Your task to perform on an android device: choose inbox layout in the gmail app Image 0: 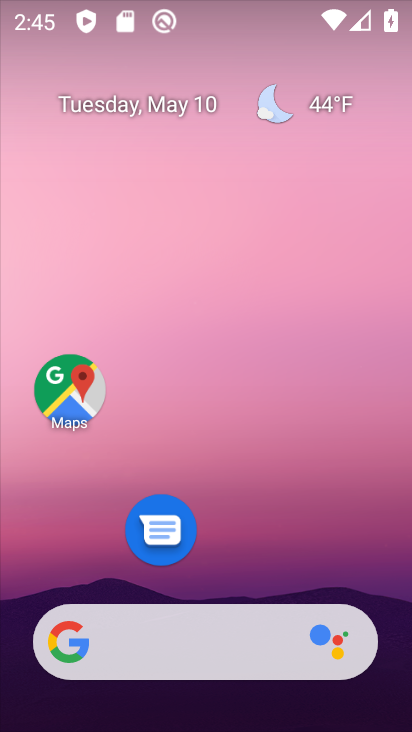
Step 0: drag from (224, 553) to (181, 34)
Your task to perform on an android device: choose inbox layout in the gmail app Image 1: 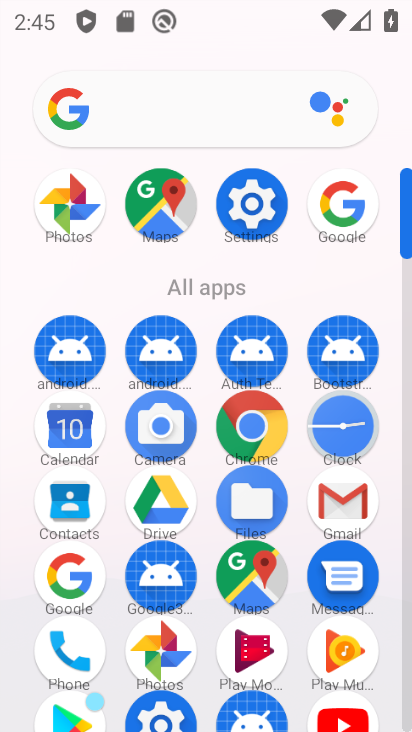
Step 1: click (343, 499)
Your task to perform on an android device: choose inbox layout in the gmail app Image 2: 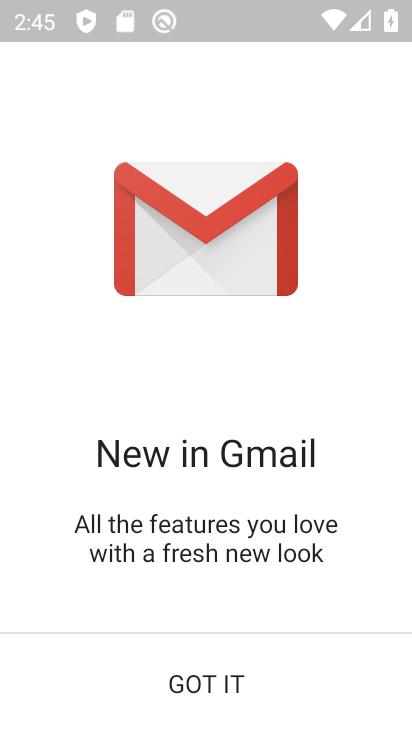
Step 2: click (219, 685)
Your task to perform on an android device: choose inbox layout in the gmail app Image 3: 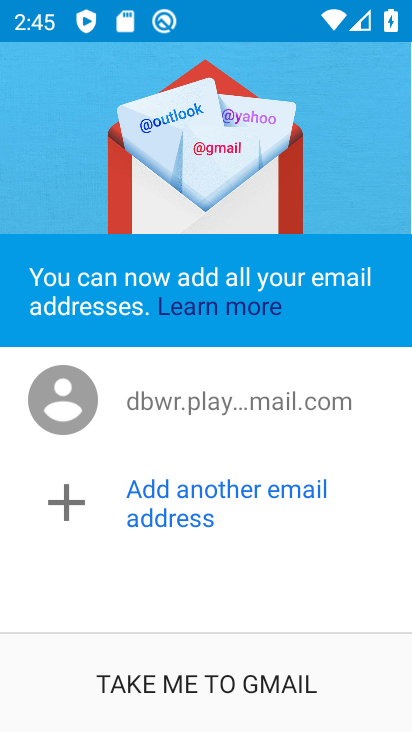
Step 3: click (226, 676)
Your task to perform on an android device: choose inbox layout in the gmail app Image 4: 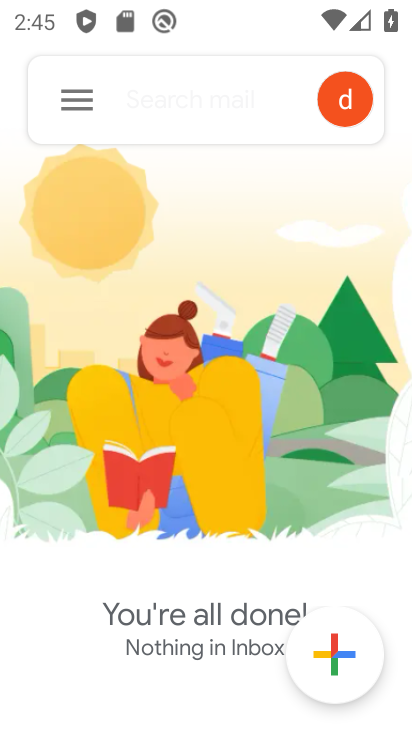
Step 4: click (74, 103)
Your task to perform on an android device: choose inbox layout in the gmail app Image 5: 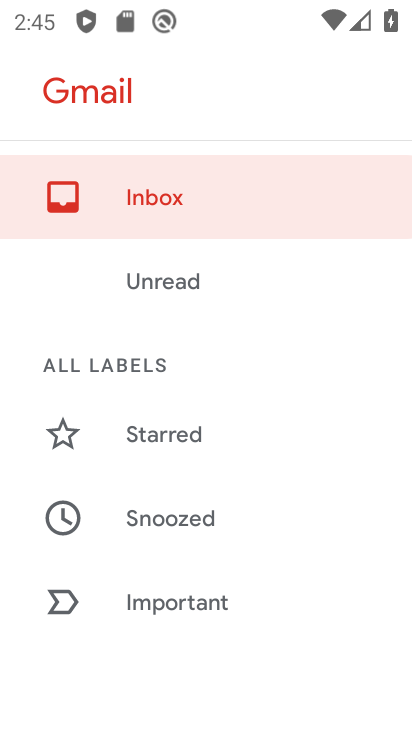
Step 5: drag from (232, 557) to (208, 34)
Your task to perform on an android device: choose inbox layout in the gmail app Image 6: 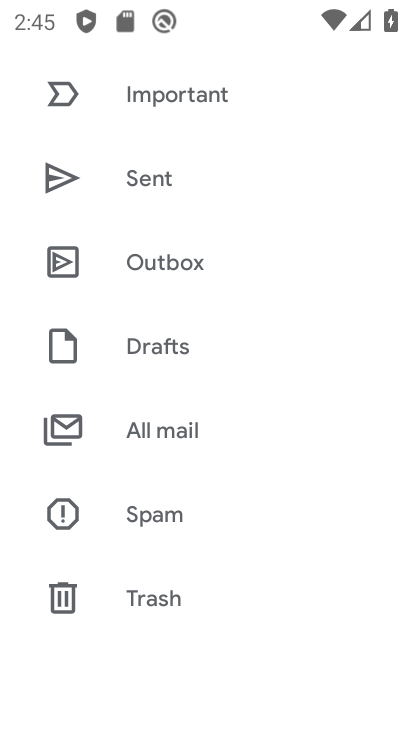
Step 6: drag from (233, 542) to (213, 83)
Your task to perform on an android device: choose inbox layout in the gmail app Image 7: 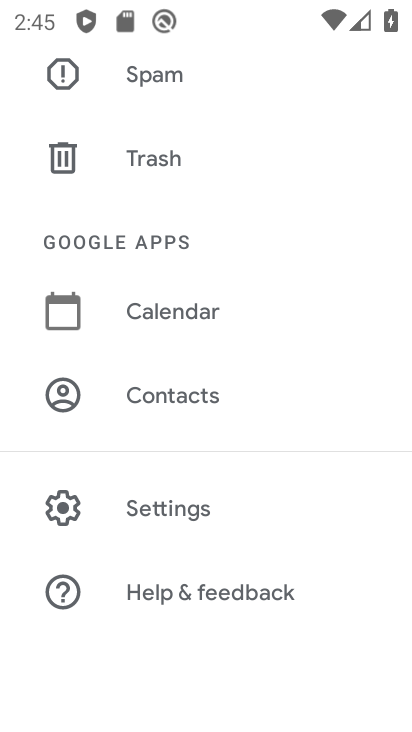
Step 7: click (166, 516)
Your task to perform on an android device: choose inbox layout in the gmail app Image 8: 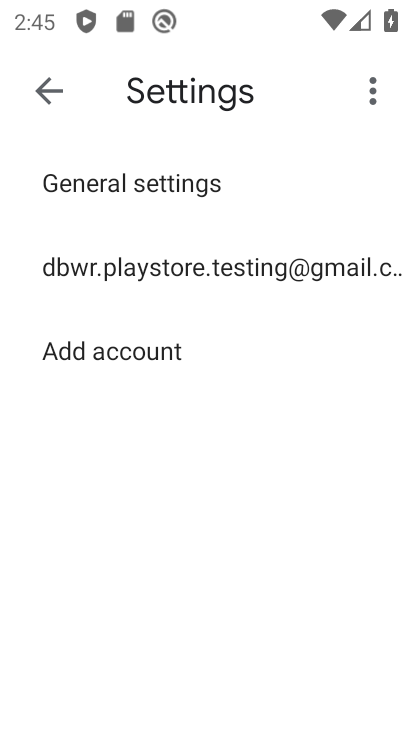
Step 8: click (119, 292)
Your task to perform on an android device: choose inbox layout in the gmail app Image 9: 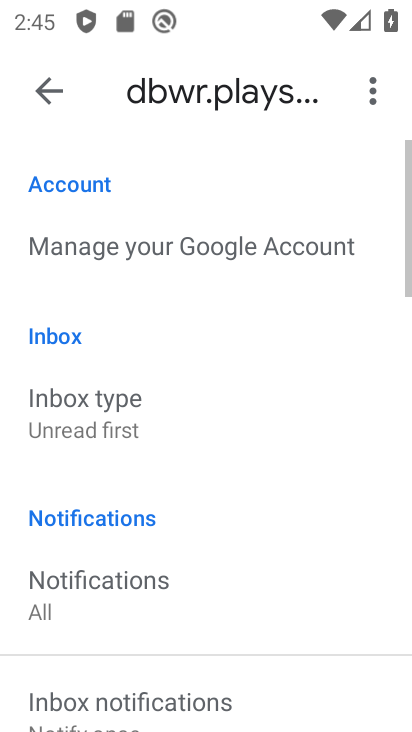
Step 9: drag from (129, 425) to (148, 279)
Your task to perform on an android device: choose inbox layout in the gmail app Image 10: 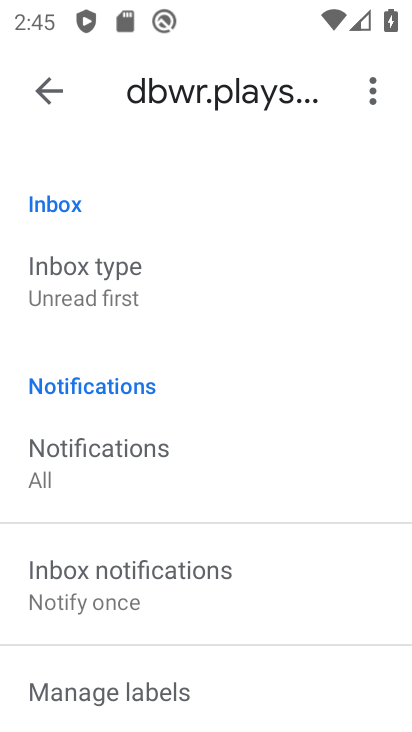
Step 10: click (118, 291)
Your task to perform on an android device: choose inbox layout in the gmail app Image 11: 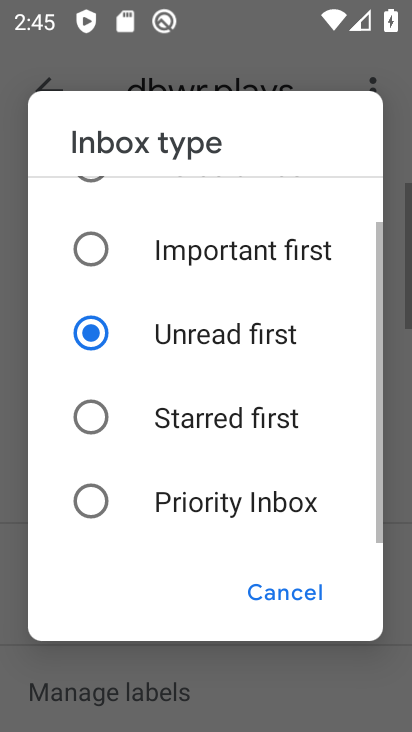
Step 11: click (90, 252)
Your task to perform on an android device: choose inbox layout in the gmail app Image 12: 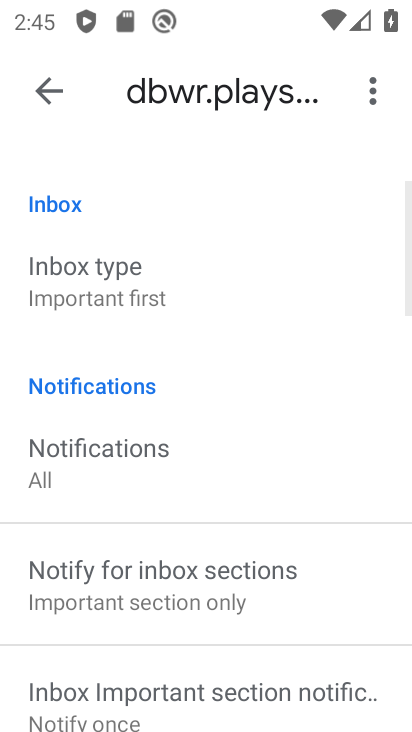
Step 12: task complete